Your task to perform on an android device: Search for seafood restaurants on Google Maps Image 0: 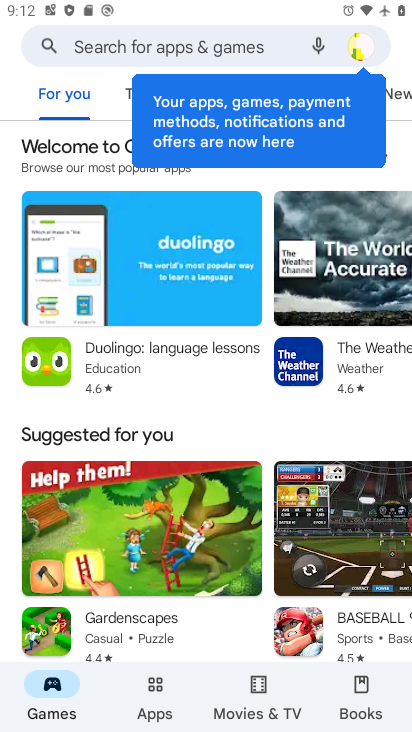
Step 0: press home button
Your task to perform on an android device: Search for seafood restaurants on Google Maps Image 1: 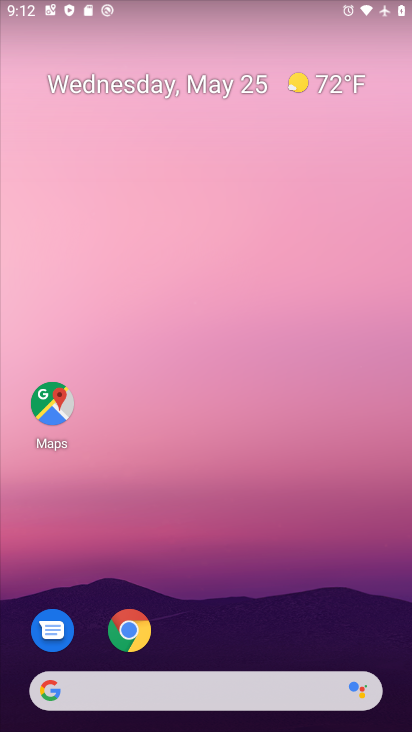
Step 1: click (66, 416)
Your task to perform on an android device: Search for seafood restaurants on Google Maps Image 2: 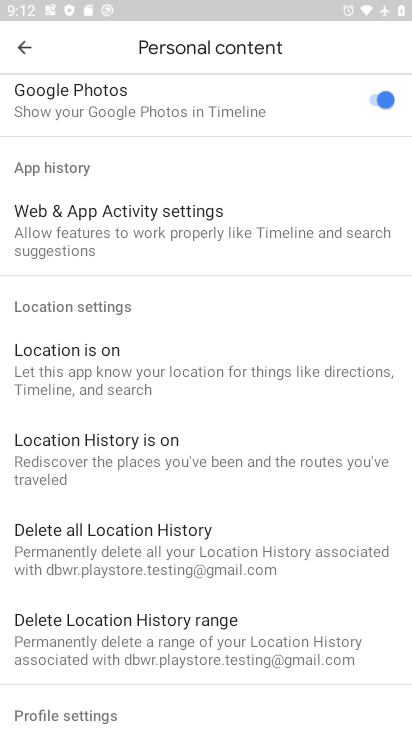
Step 2: click (20, 46)
Your task to perform on an android device: Search for seafood restaurants on Google Maps Image 3: 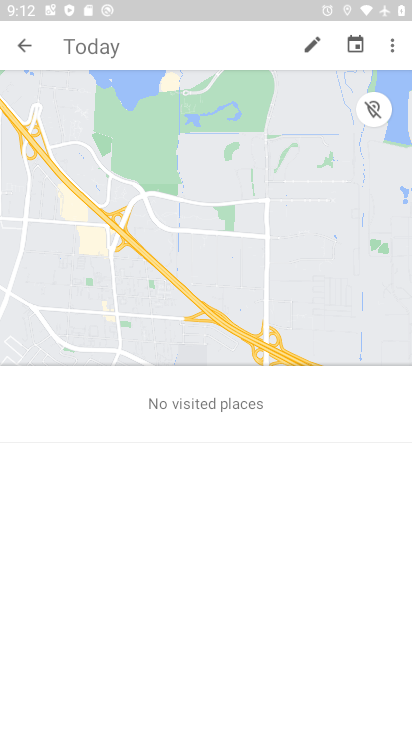
Step 3: click (18, 42)
Your task to perform on an android device: Search for seafood restaurants on Google Maps Image 4: 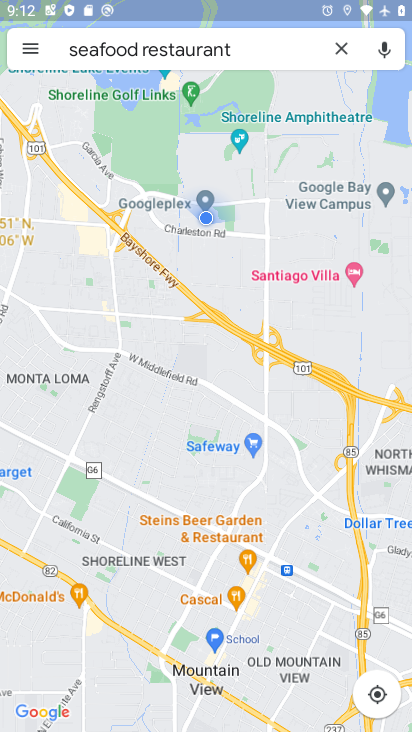
Step 4: click (191, 59)
Your task to perform on an android device: Search for seafood restaurants on Google Maps Image 5: 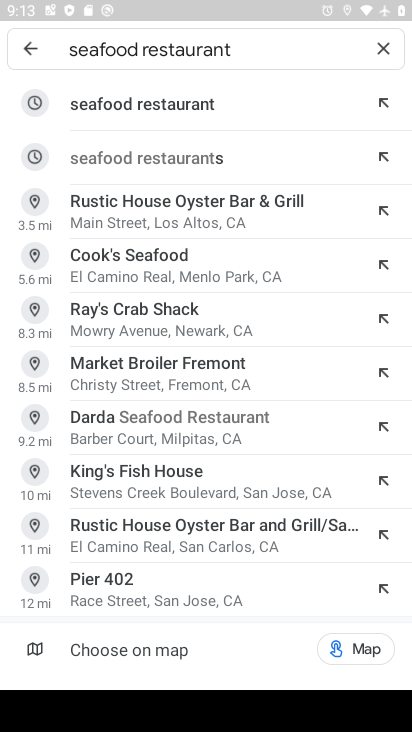
Step 5: click (200, 103)
Your task to perform on an android device: Search for seafood restaurants on Google Maps Image 6: 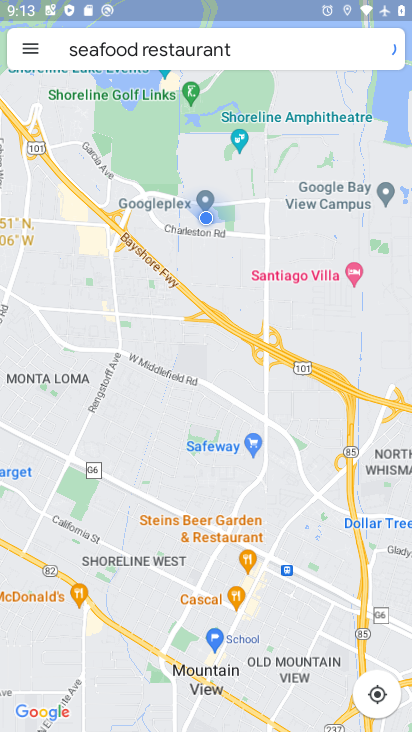
Step 6: task complete